Your task to perform on an android device: Open calendar and show me the third week of next month Image 0: 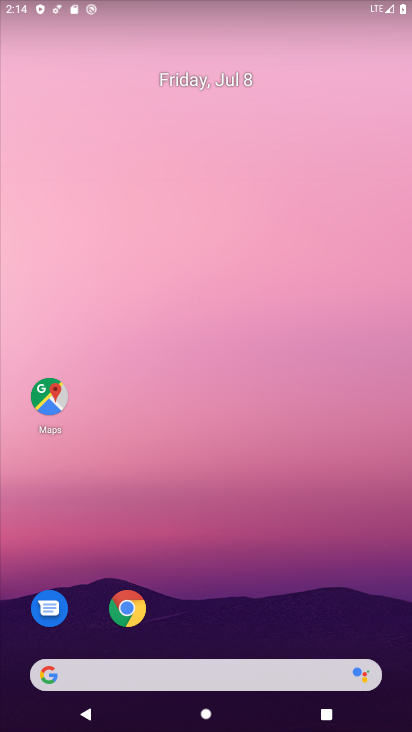
Step 0: drag from (206, 546) to (285, 215)
Your task to perform on an android device: Open calendar and show me the third week of next month Image 1: 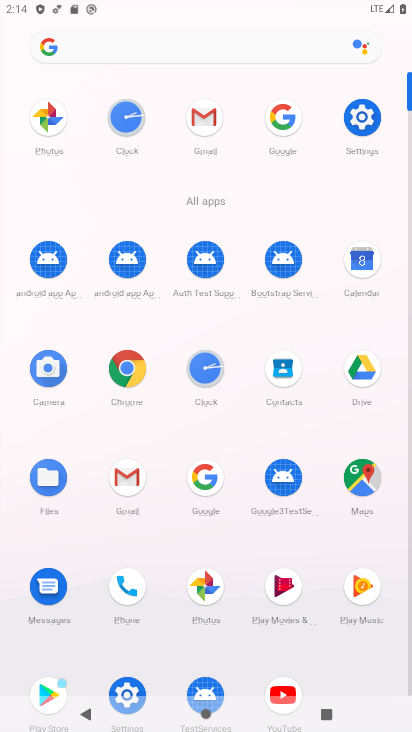
Step 1: click (364, 259)
Your task to perform on an android device: Open calendar and show me the third week of next month Image 2: 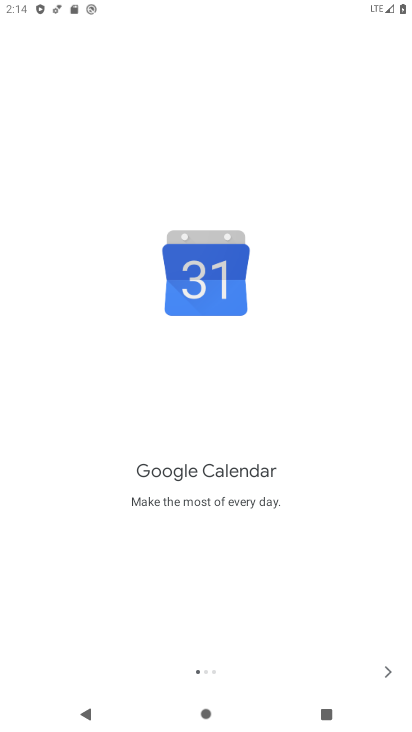
Step 2: click (383, 670)
Your task to perform on an android device: Open calendar and show me the third week of next month Image 3: 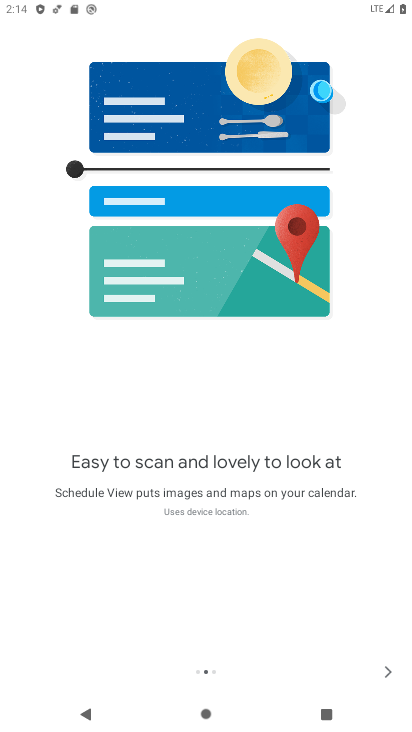
Step 3: click (383, 670)
Your task to perform on an android device: Open calendar and show me the third week of next month Image 4: 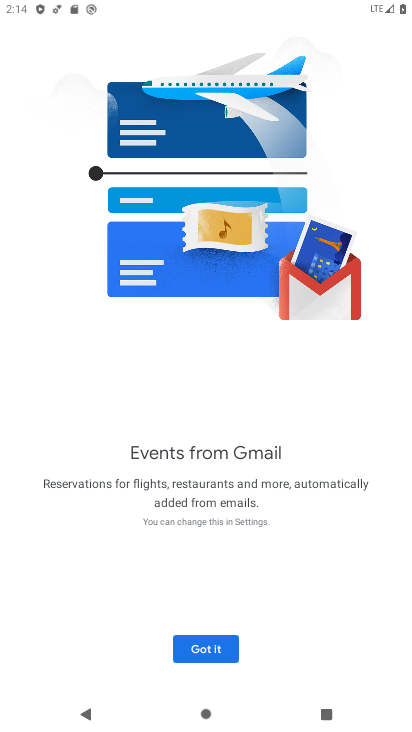
Step 4: click (220, 646)
Your task to perform on an android device: Open calendar and show me the third week of next month Image 5: 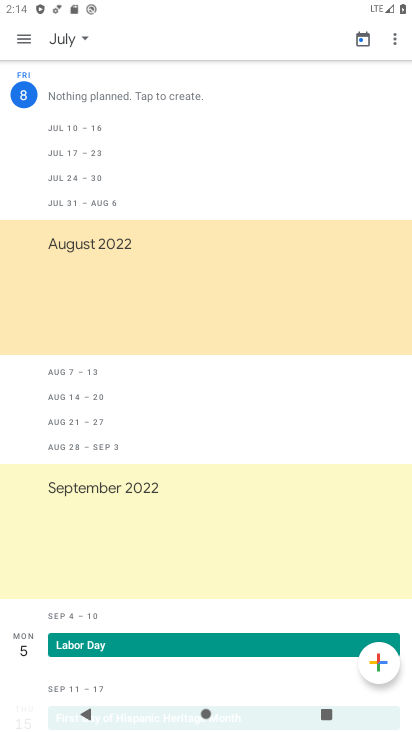
Step 5: click (77, 38)
Your task to perform on an android device: Open calendar and show me the third week of next month Image 6: 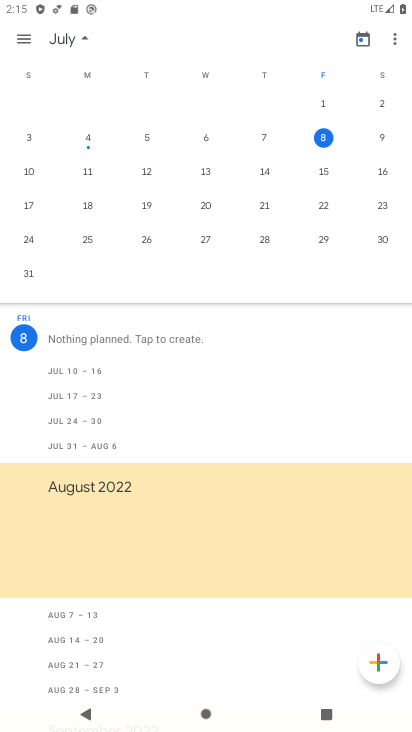
Step 6: drag from (390, 262) to (5, 214)
Your task to perform on an android device: Open calendar and show me the third week of next month Image 7: 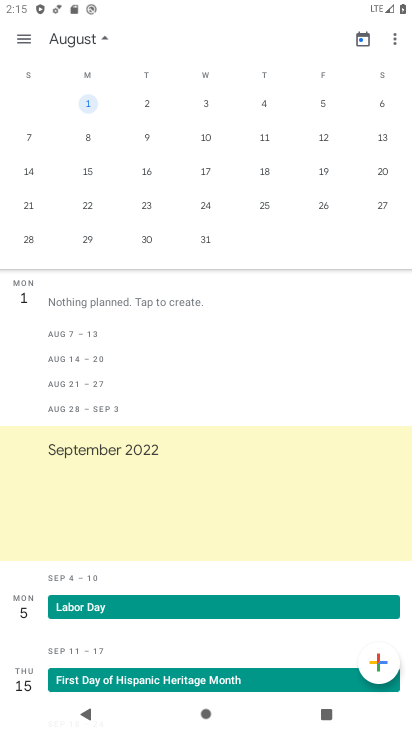
Step 7: click (145, 167)
Your task to perform on an android device: Open calendar and show me the third week of next month Image 8: 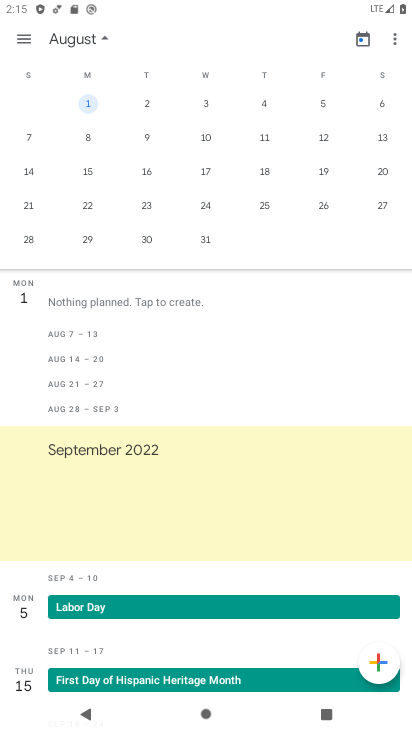
Step 8: click (147, 172)
Your task to perform on an android device: Open calendar and show me the third week of next month Image 9: 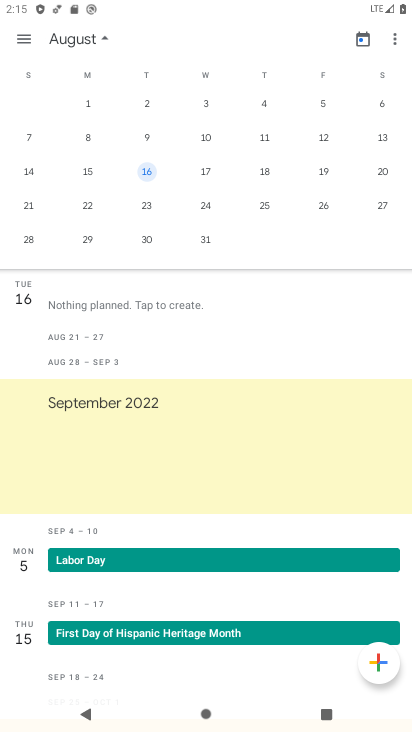
Step 9: task complete